Your task to perform on an android device: Open privacy settings Image 0: 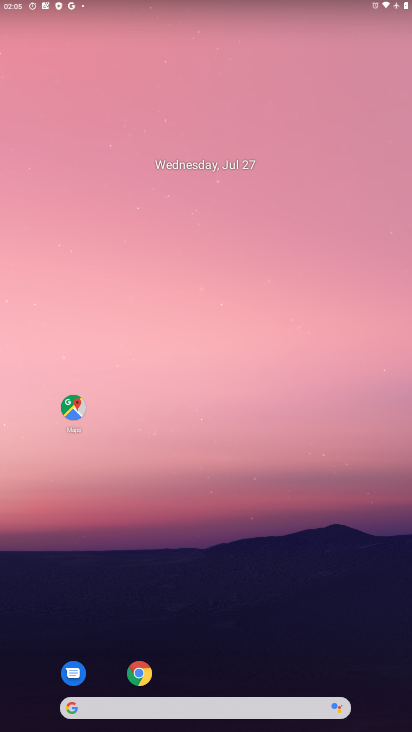
Step 0: drag from (233, 668) to (257, 126)
Your task to perform on an android device: Open privacy settings Image 1: 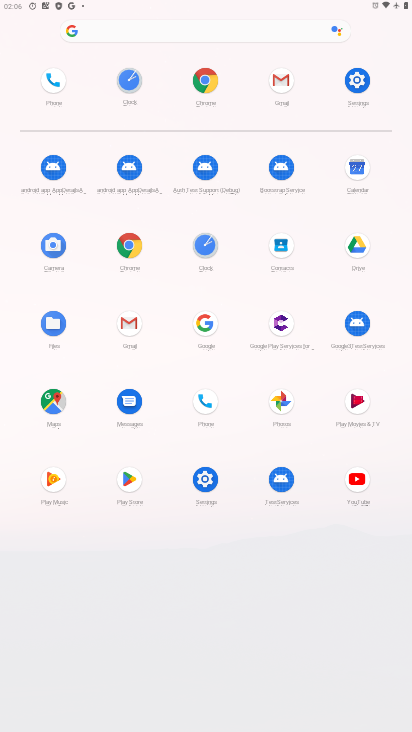
Step 1: click (358, 85)
Your task to perform on an android device: Open privacy settings Image 2: 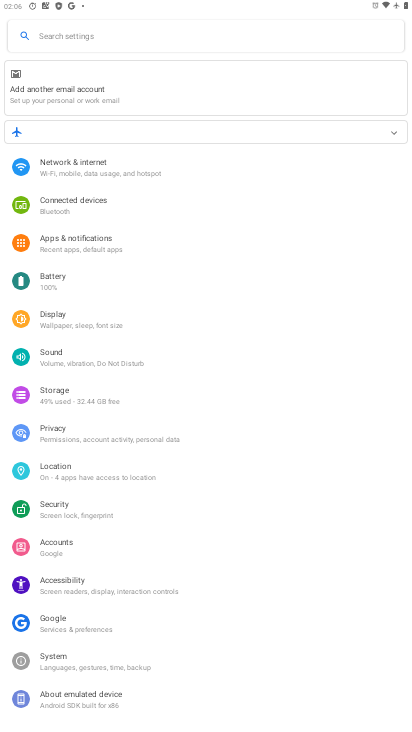
Step 2: click (54, 429)
Your task to perform on an android device: Open privacy settings Image 3: 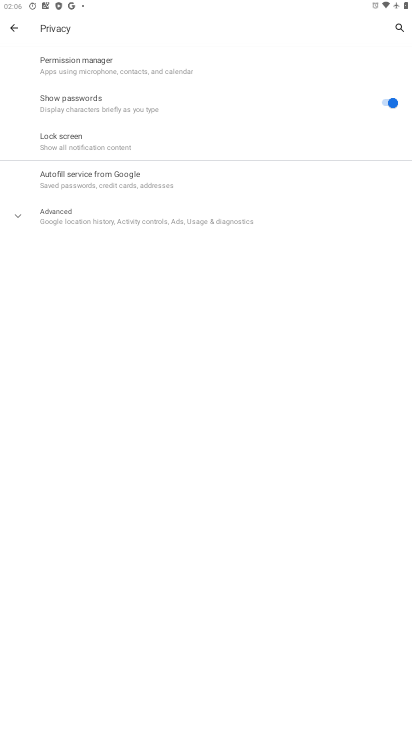
Step 3: task complete